Your task to perform on an android device: Search for seafood restaurants on Google Maps Image 0: 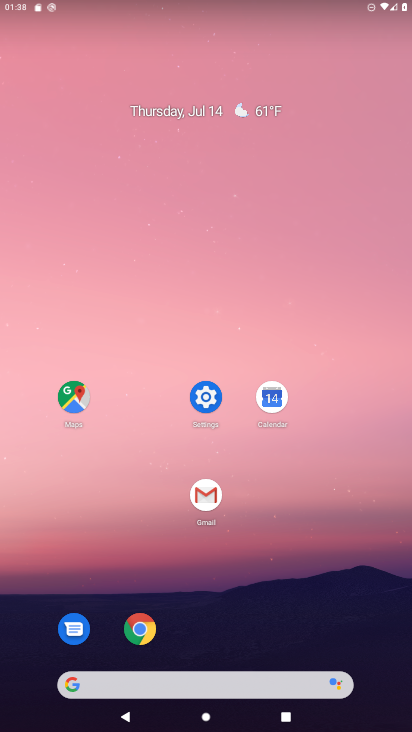
Step 0: click (84, 388)
Your task to perform on an android device: Search for seafood restaurants on Google Maps Image 1: 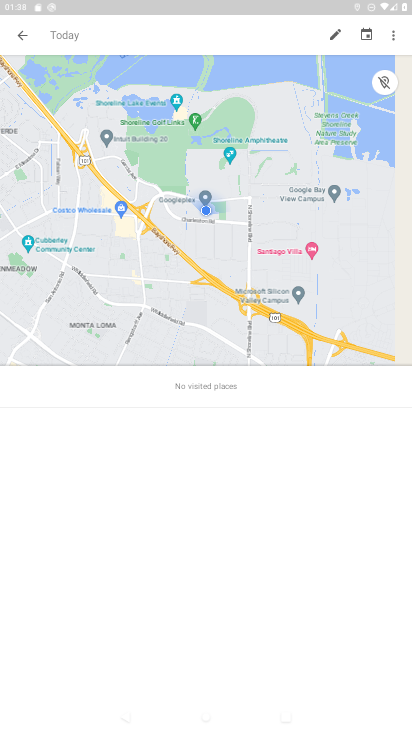
Step 1: click (199, 36)
Your task to perform on an android device: Search for seafood restaurants on Google Maps Image 2: 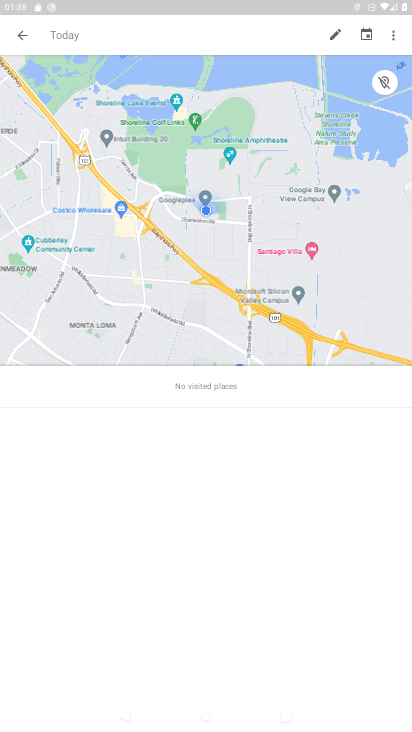
Step 2: type "seafood restaurants"
Your task to perform on an android device: Search for seafood restaurants on Google Maps Image 3: 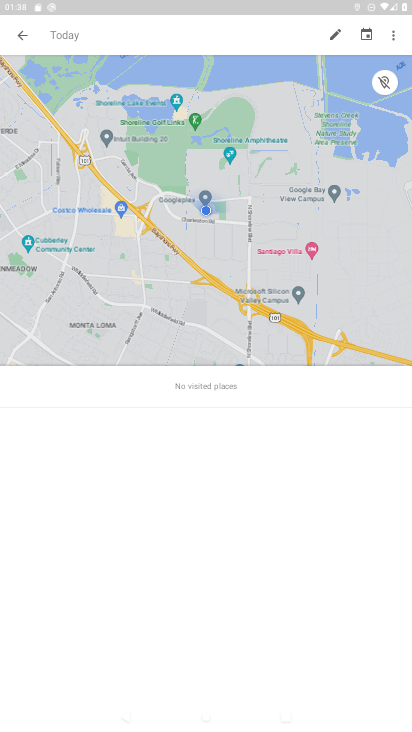
Step 3: click (93, 31)
Your task to perform on an android device: Search for seafood restaurants on Google Maps Image 4: 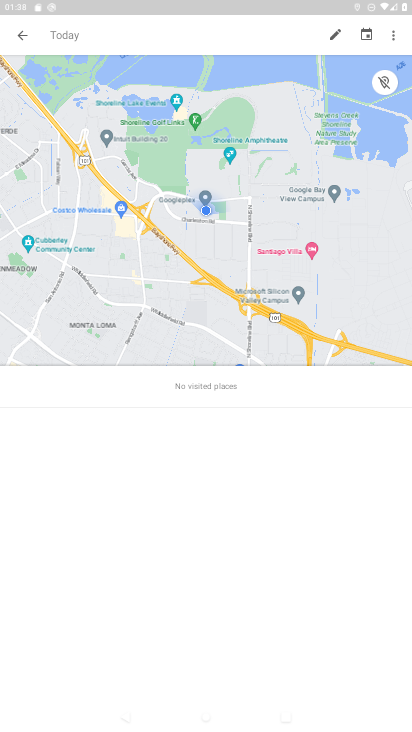
Step 4: type "seafood restaurants"
Your task to perform on an android device: Search for seafood restaurants on Google Maps Image 5: 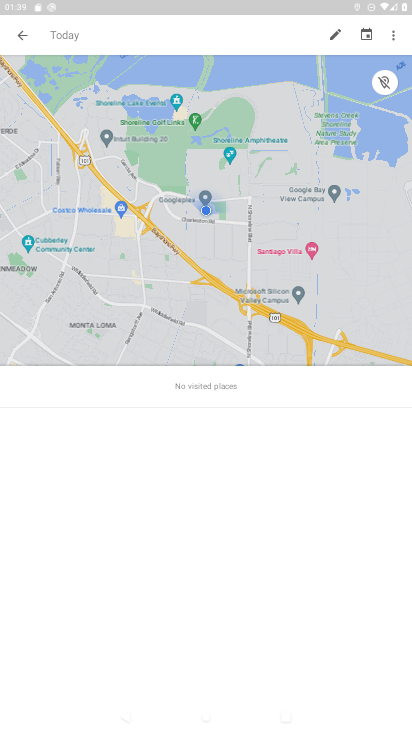
Step 5: click (107, 39)
Your task to perform on an android device: Search for seafood restaurants on Google Maps Image 6: 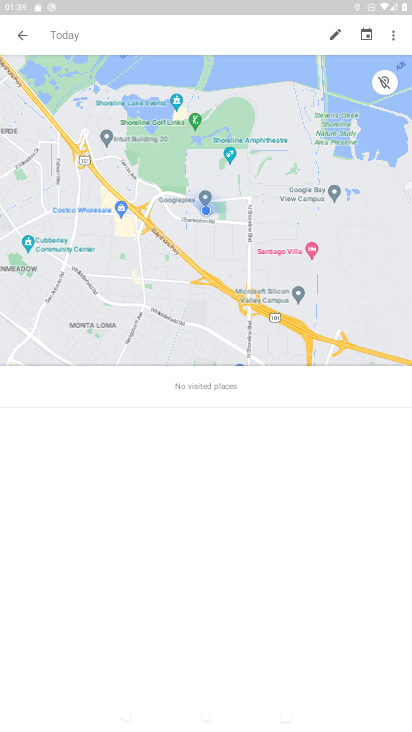
Step 6: type "seafood restaurants"
Your task to perform on an android device: Search for seafood restaurants on Google Maps Image 7: 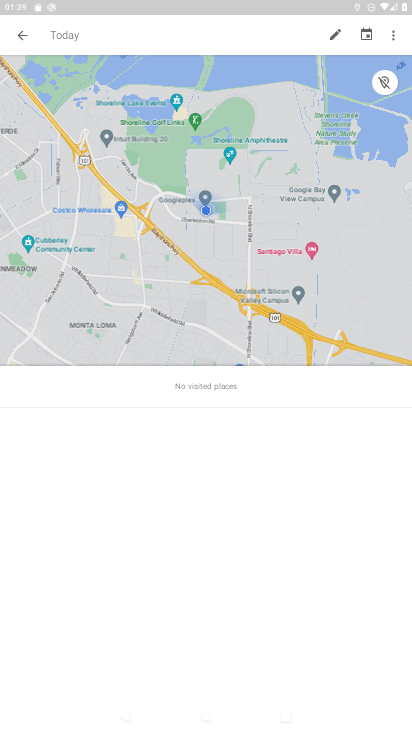
Step 7: click (132, 35)
Your task to perform on an android device: Search for seafood restaurants on Google Maps Image 8: 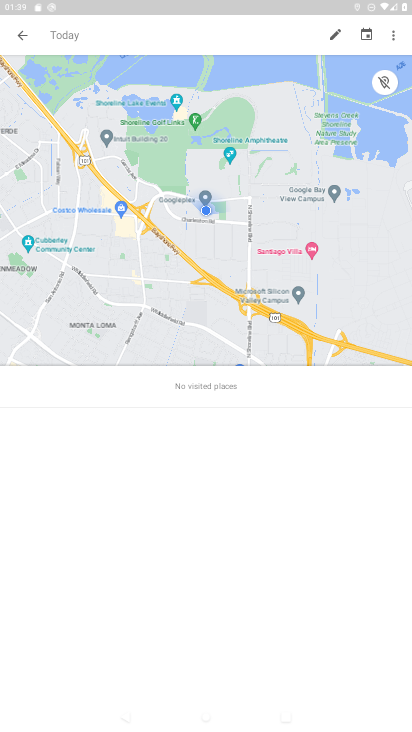
Step 8: click (27, 35)
Your task to perform on an android device: Search for seafood restaurants on Google Maps Image 9: 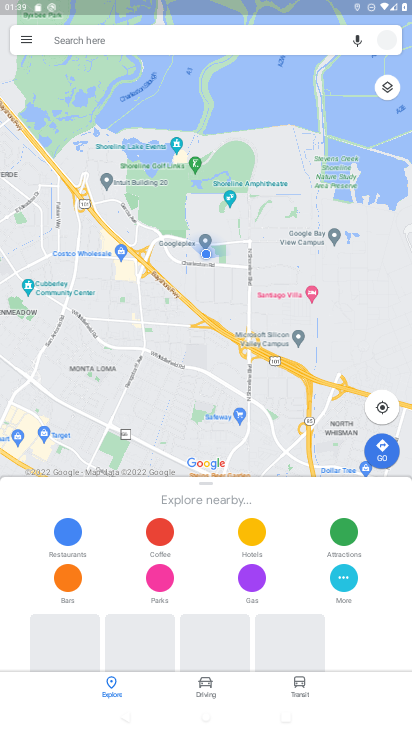
Step 9: click (90, 44)
Your task to perform on an android device: Search for seafood restaurants on Google Maps Image 10: 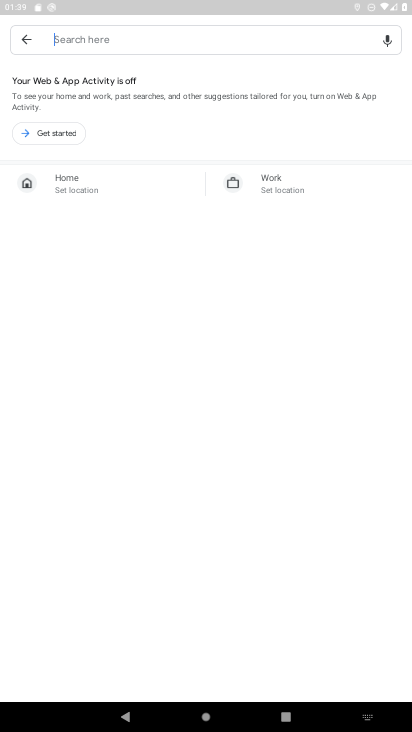
Step 10: type "seafood restaurants"
Your task to perform on an android device: Search for seafood restaurants on Google Maps Image 11: 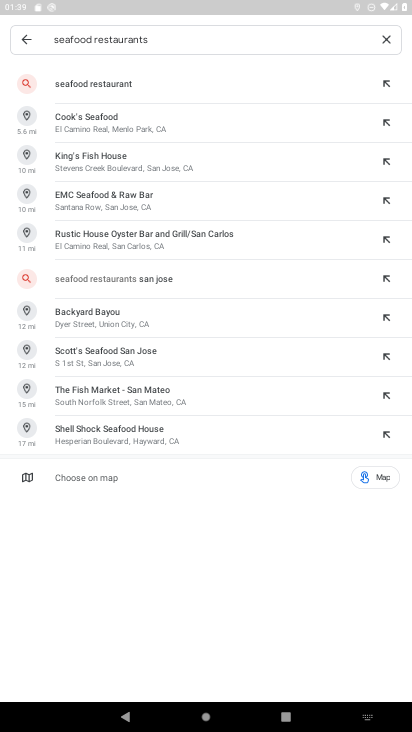
Step 11: click (105, 82)
Your task to perform on an android device: Search for seafood restaurants on Google Maps Image 12: 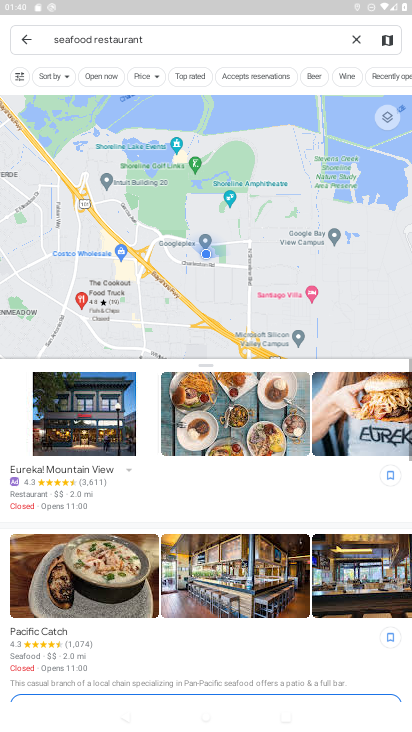
Step 12: task complete